Your task to perform on an android device: turn off location Image 0: 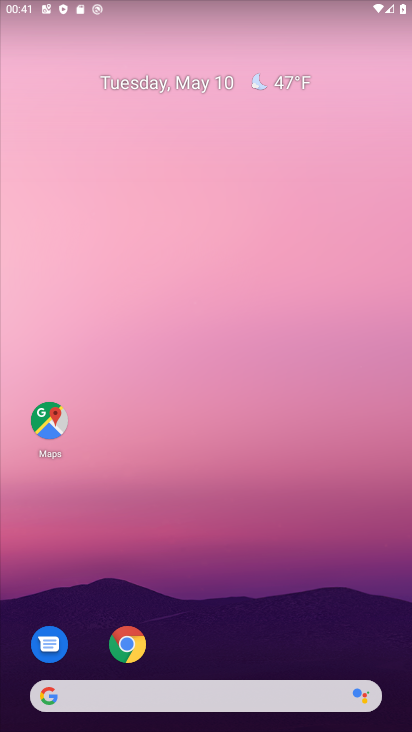
Step 0: drag from (289, 657) to (393, 90)
Your task to perform on an android device: turn off location Image 1: 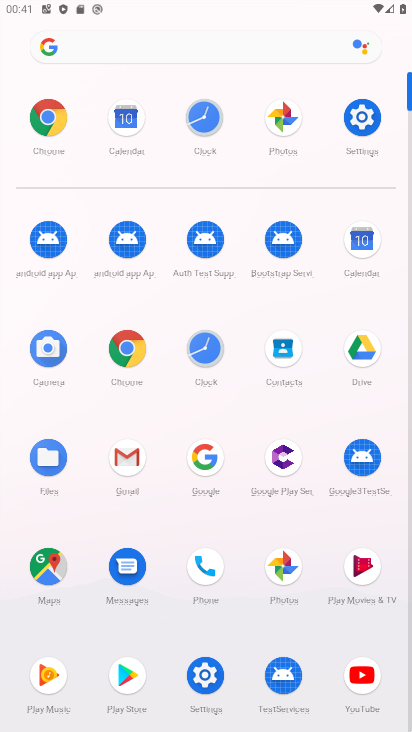
Step 1: click (355, 112)
Your task to perform on an android device: turn off location Image 2: 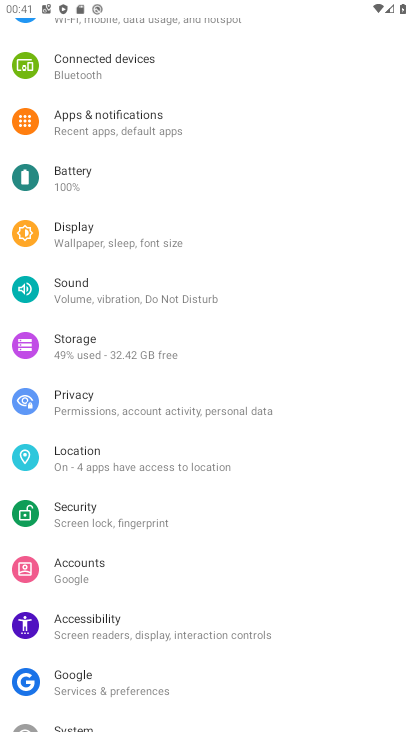
Step 2: click (133, 472)
Your task to perform on an android device: turn off location Image 3: 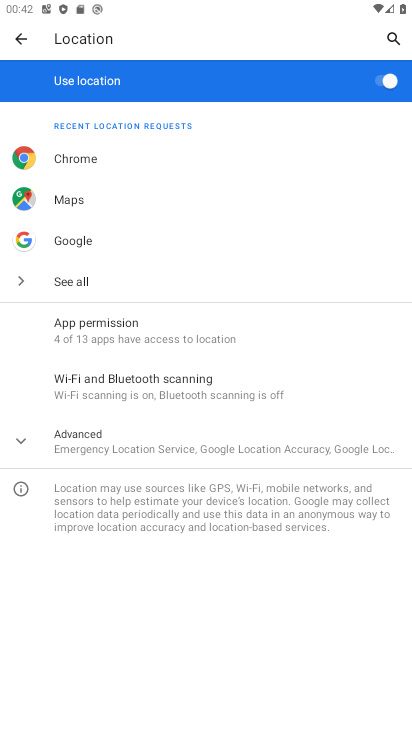
Step 3: click (387, 78)
Your task to perform on an android device: turn off location Image 4: 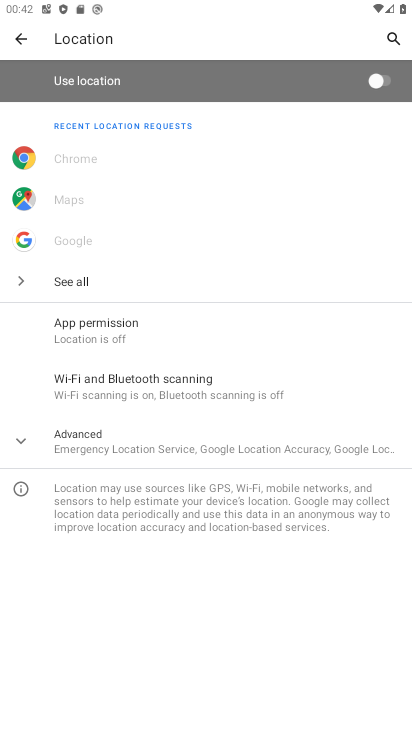
Step 4: task complete